Your task to perform on an android device: toggle priority inbox in the gmail app Image 0: 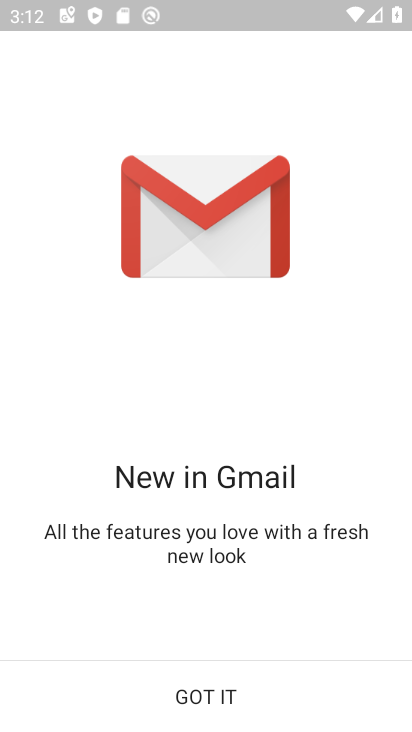
Step 0: click (251, 693)
Your task to perform on an android device: toggle priority inbox in the gmail app Image 1: 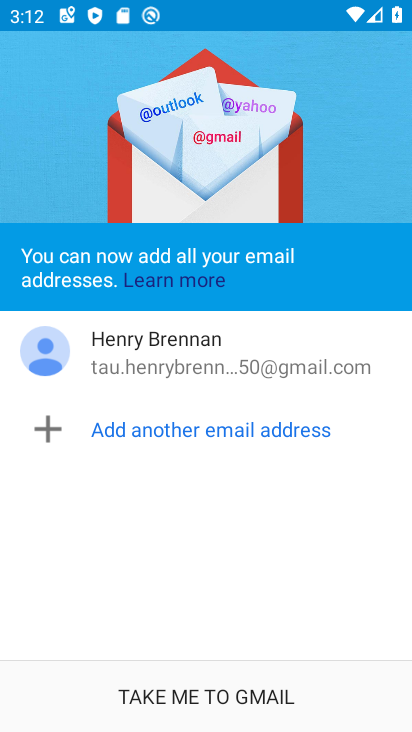
Step 1: click (251, 694)
Your task to perform on an android device: toggle priority inbox in the gmail app Image 2: 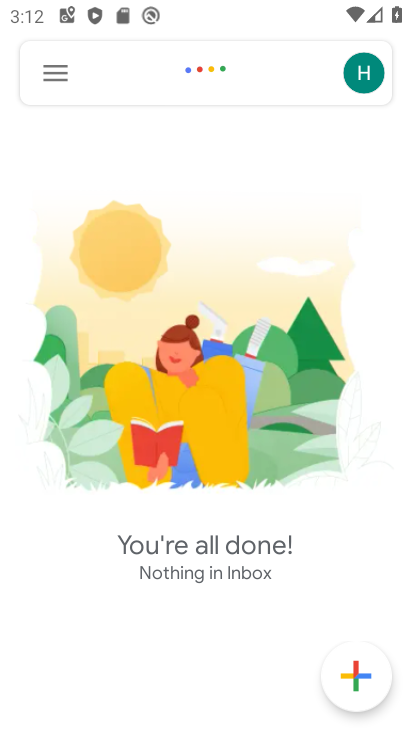
Step 2: click (59, 77)
Your task to perform on an android device: toggle priority inbox in the gmail app Image 3: 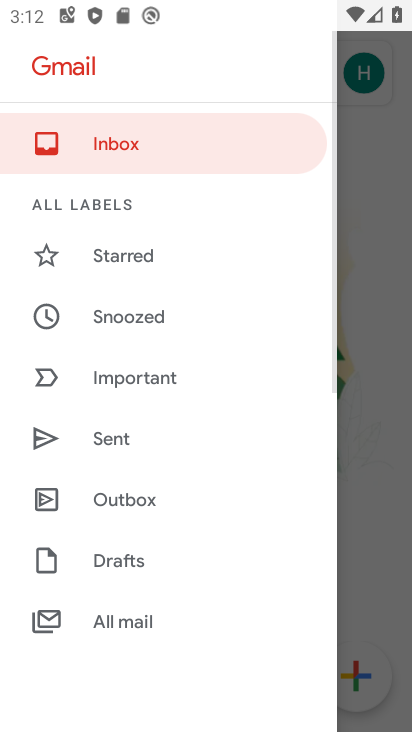
Step 3: drag from (198, 502) to (216, 25)
Your task to perform on an android device: toggle priority inbox in the gmail app Image 4: 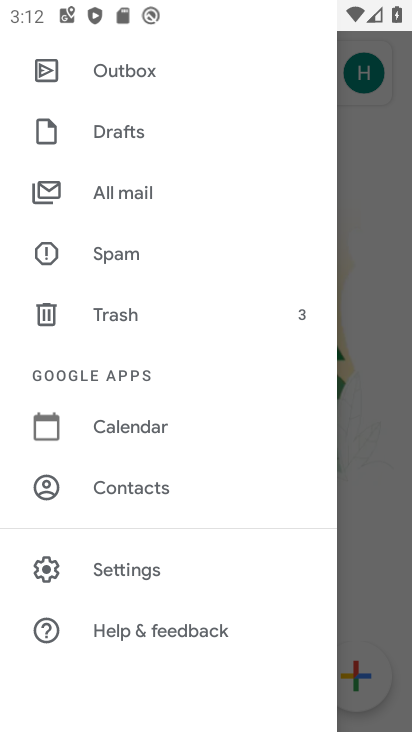
Step 4: click (137, 574)
Your task to perform on an android device: toggle priority inbox in the gmail app Image 5: 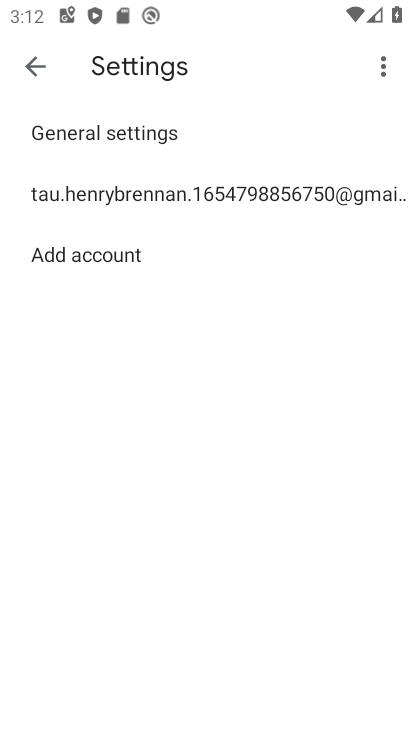
Step 5: click (239, 195)
Your task to perform on an android device: toggle priority inbox in the gmail app Image 6: 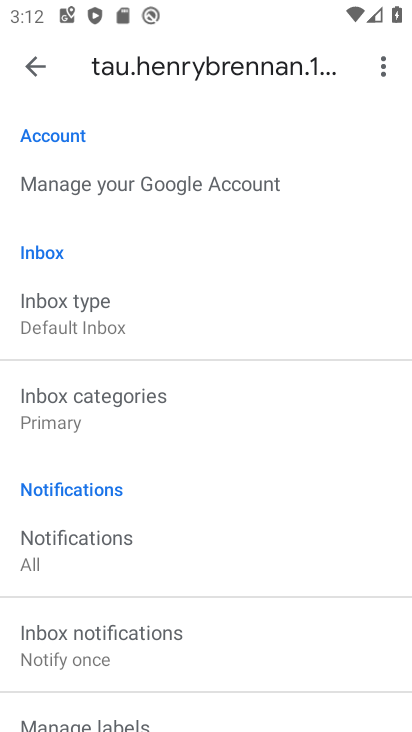
Step 6: click (76, 300)
Your task to perform on an android device: toggle priority inbox in the gmail app Image 7: 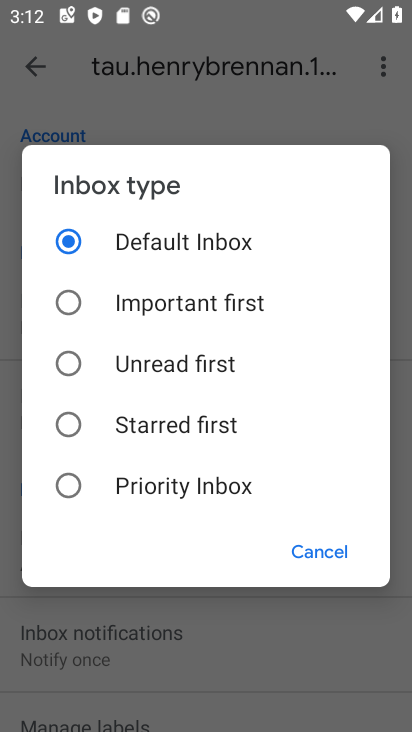
Step 7: click (70, 481)
Your task to perform on an android device: toggle priority inbox in the gmail app Image 8: 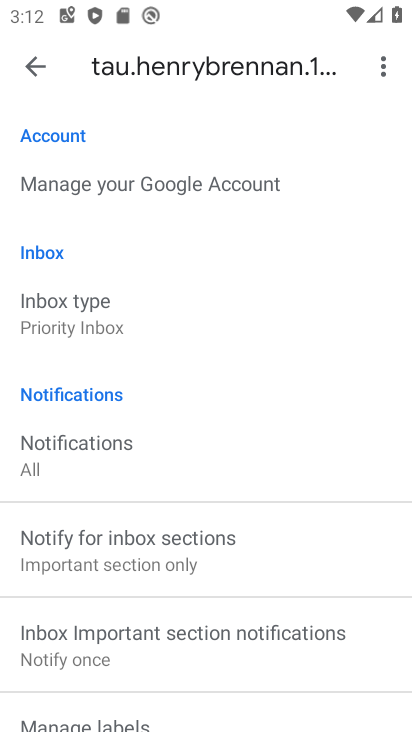
Step 8: task complete